Your task to perform on an android device: Open Maps and search for coffee Image 0: 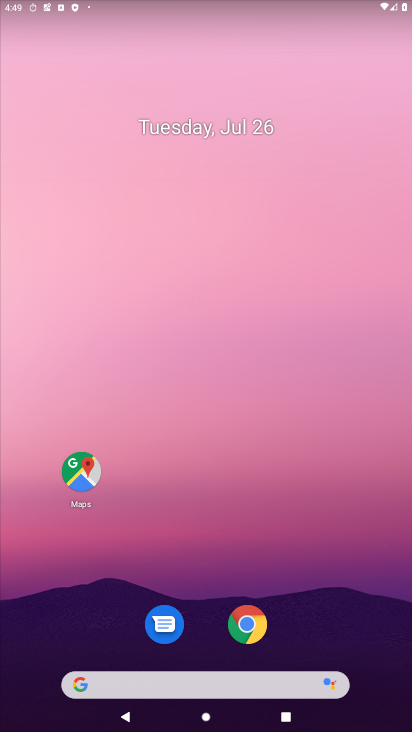
Step 0: press home button
Your task to perform on an android device: Open Maps and search for coffee Image 1: 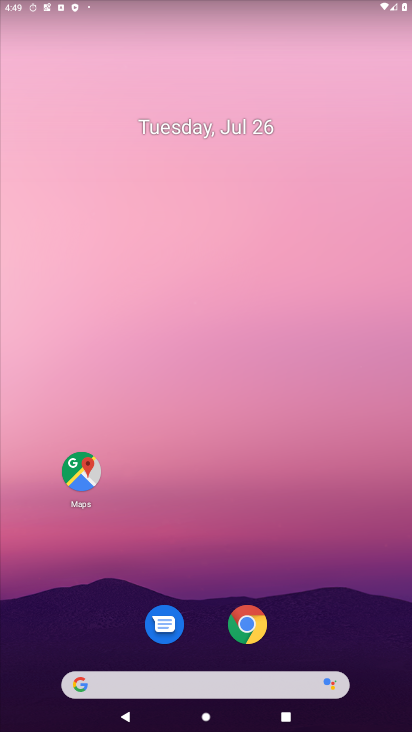
Step 1: drag from (225, 671) to (320, 4)
Your task to perform on an android device: Open Maps and search for coffee Image 2: 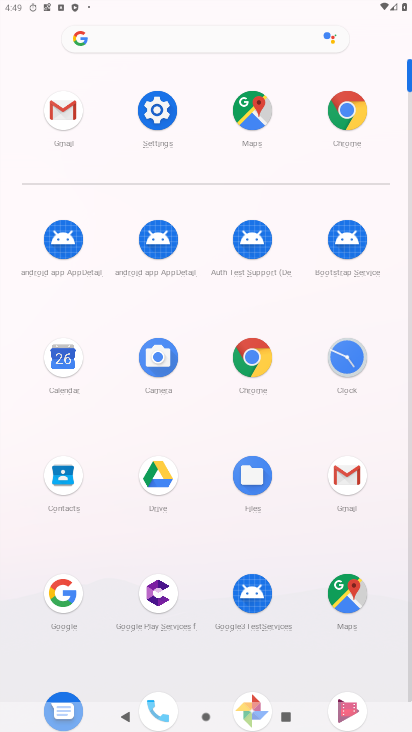
Step 2: click (336, 607)
Your task to perform on an android device: Open Maps and search for coffee Image 3: 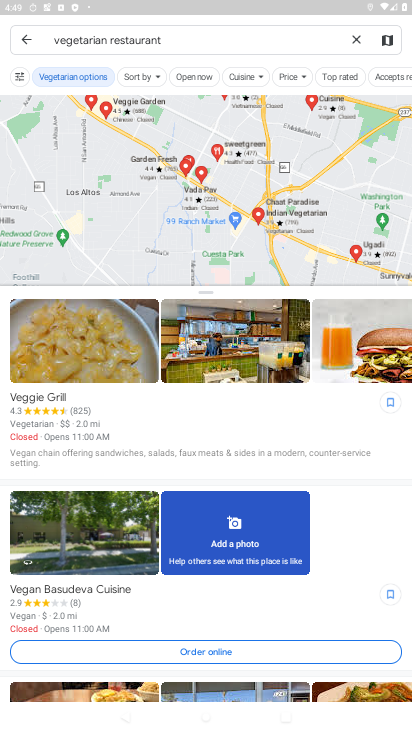
Step 3: click (361, 36)
Your task to perform on an android device: Open Maps and search for coffee Image 4: 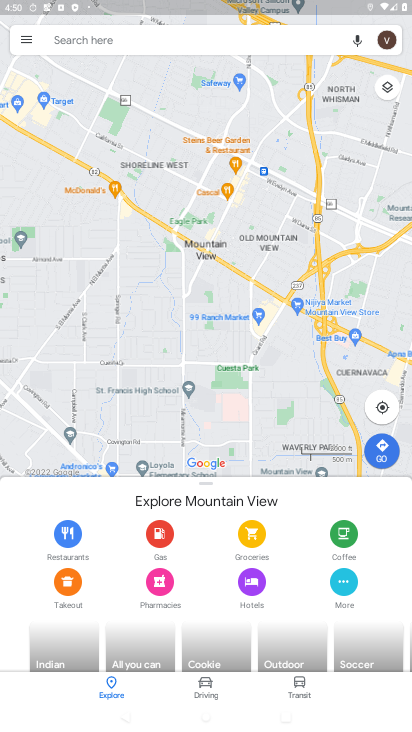
Step 4: click (263, 44)
Your task to perform on an android device: Open Maps and search for coffee Image 5: 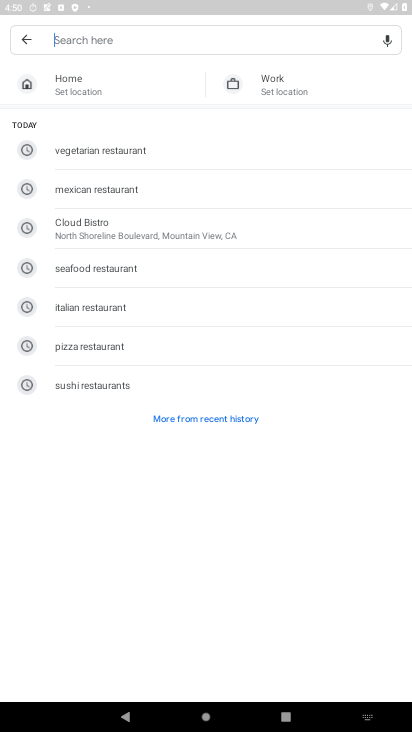
Step 5: type "coffee"
Your task to perform on an android device: Open Maps and search for coffee Image 6: 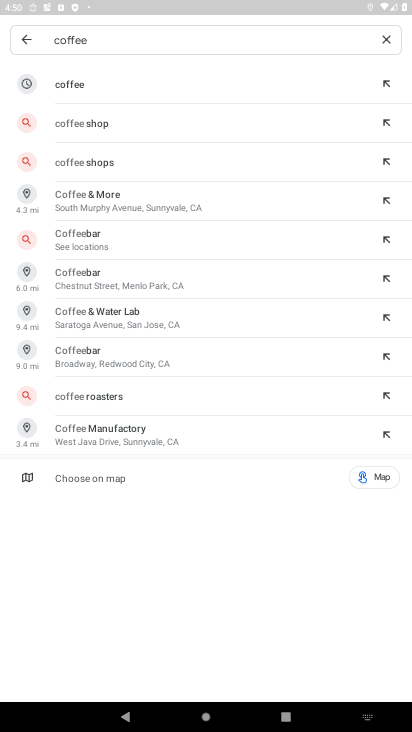
Step 6: click (76, 91)
Your task to perform on an android device: Open Maps and search for coffee Image 7: 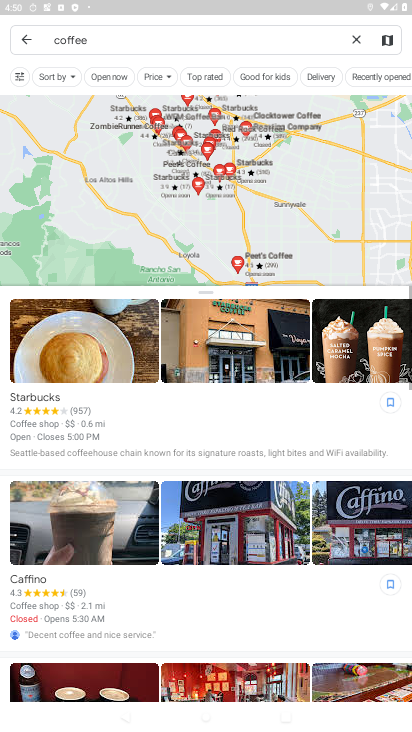
Step 7: task complete